Your task to perform on an android device: What's the weather going to be tomorrow? Image 0: 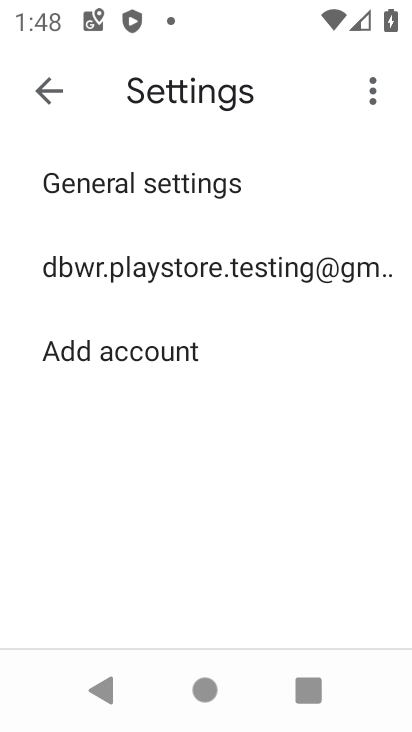
Step 0: task complete